Your task to perform on an android device: Check the news Image 0: 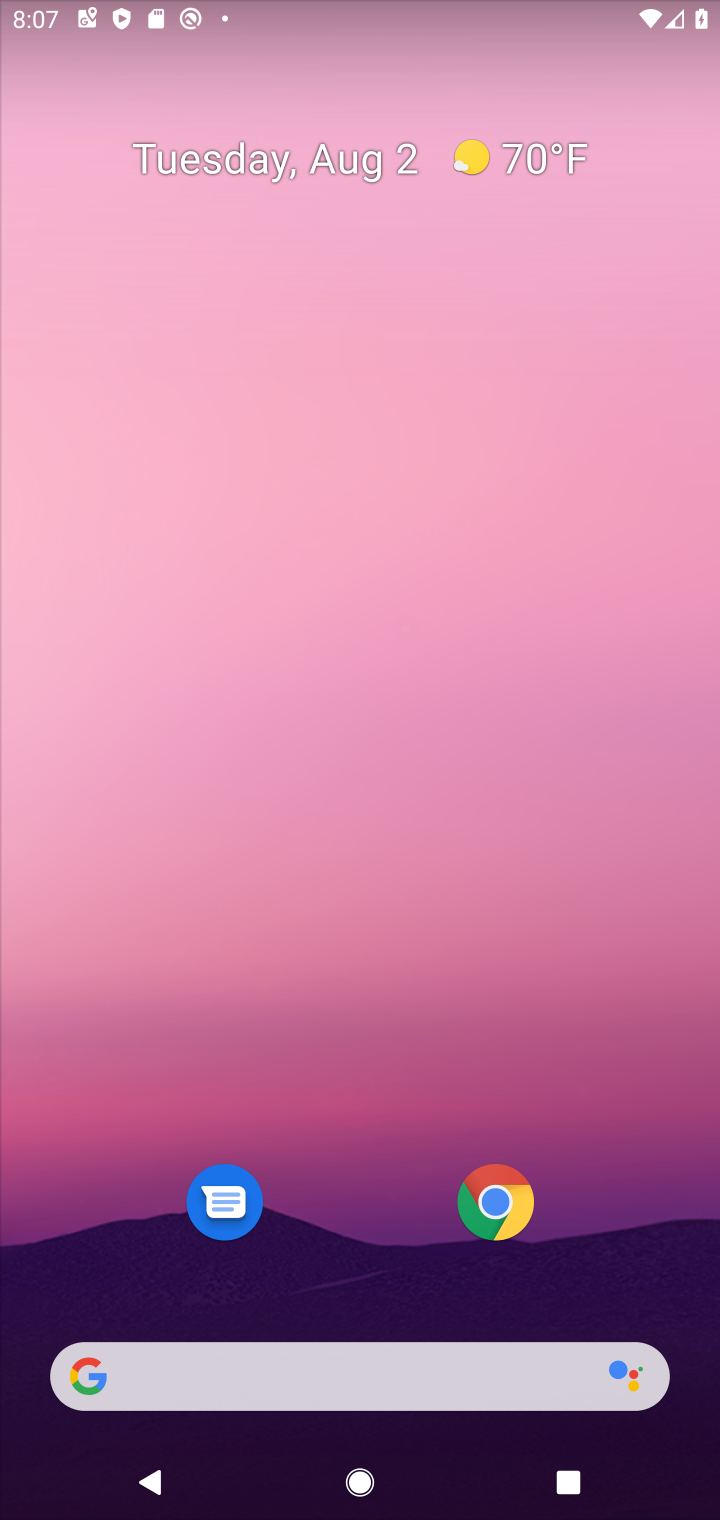
Step 0: click (165, 1379)
Your task to perform on an android device: Check the news Image 1: 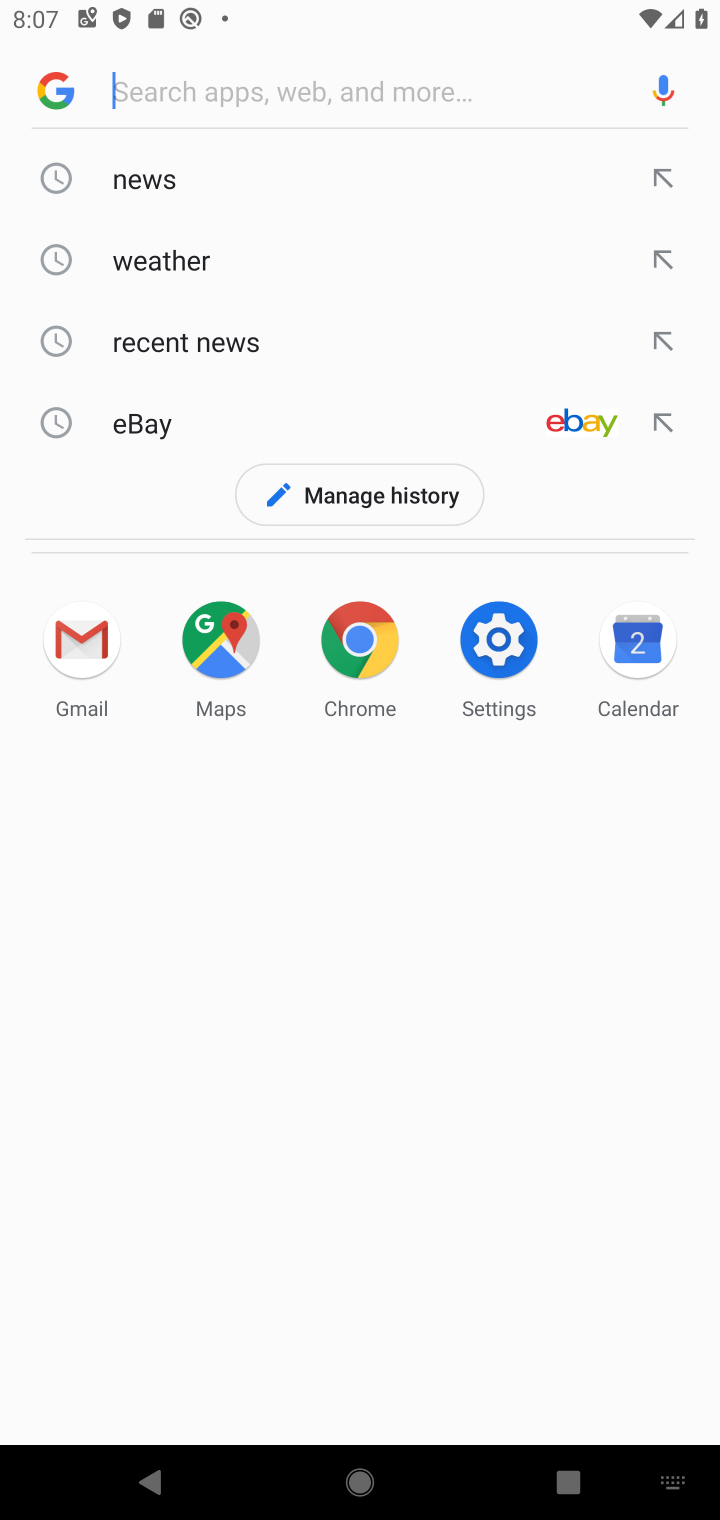
Step 1: click (137, 191)
Your task to perform on an android device: Check the news Image 2: 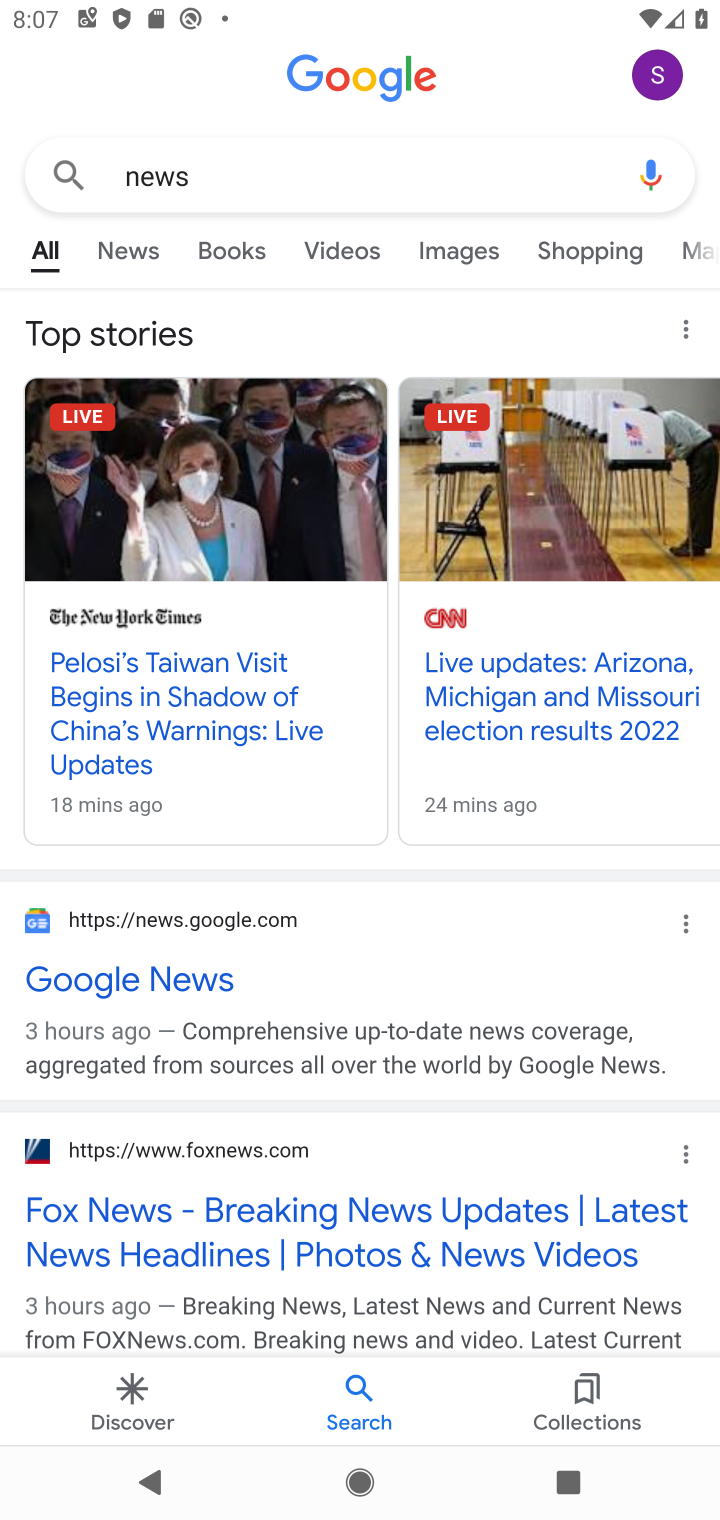
Step 2: click (137, 262)
Your task to perform on an android device: Check the news Image 3: 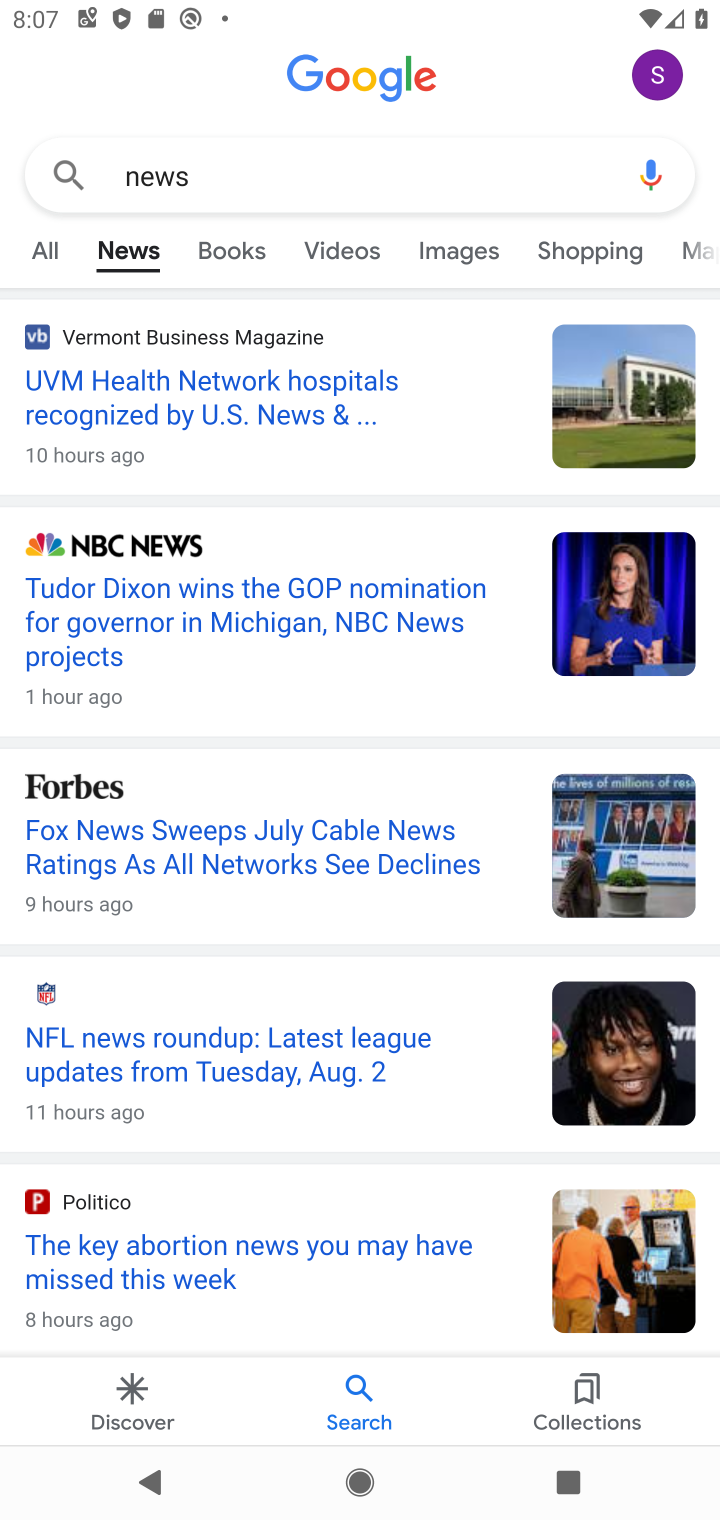
Step 3: task complete